Your task to perform on an android device: change keyboard looks Image 0: 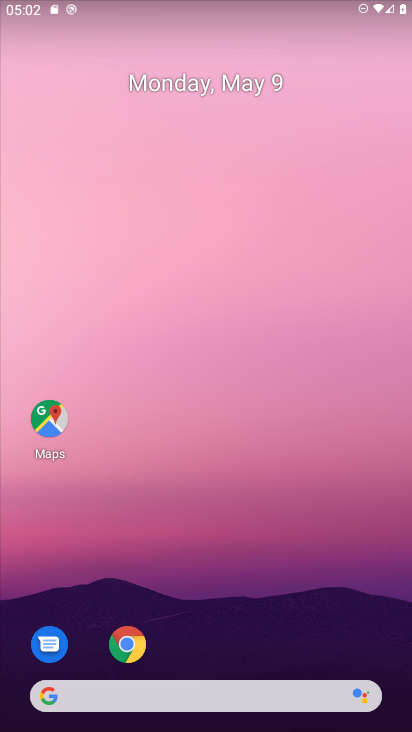
Step 0: drag from (211, 569) to (259, 212)
Your task to perform on an android device: change keyboard looks Image 1: 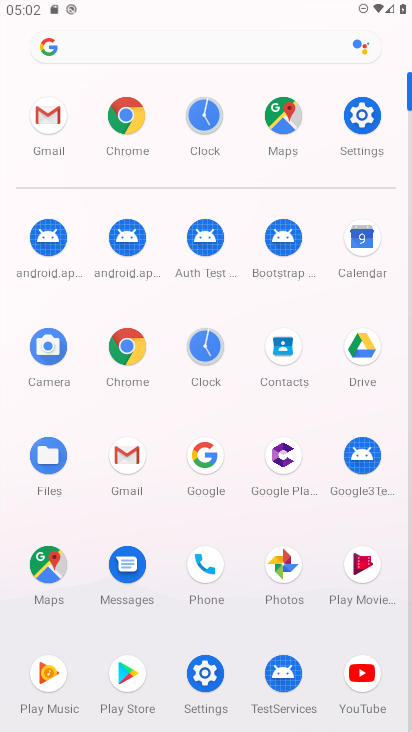
Step 1: click (204, 667)
Your task to perform on an android device: change keyboard looks Image 2: 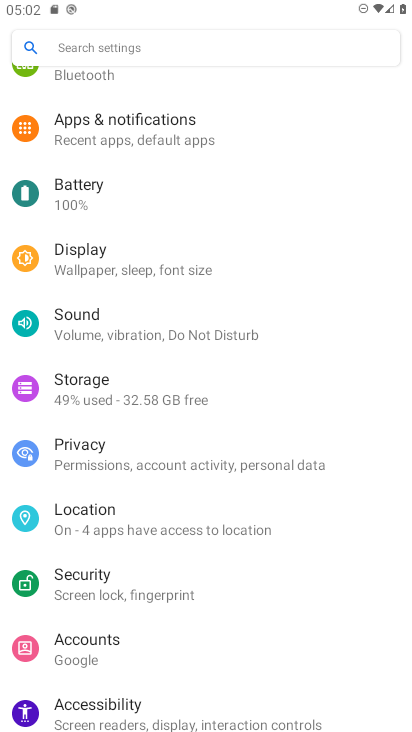
Step 2: drag from (170, 622) to (203, 494)
Your task to perform on an android device: change keyboard looks Image 3: 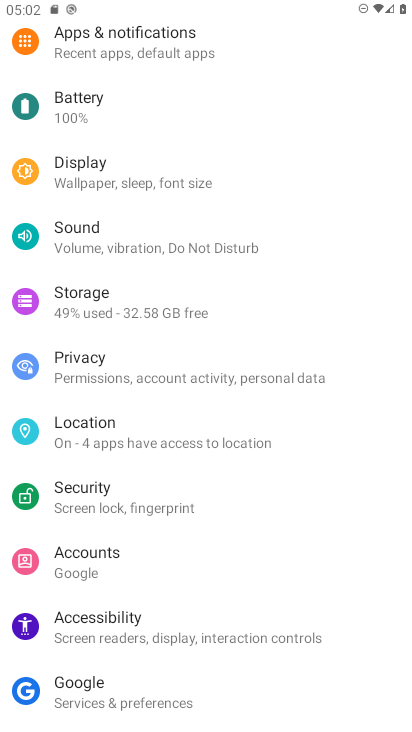
Step 3: drag from (141, 687) to (187, 529)
Your task to perform on an android device: change keyboard looks Image 4: 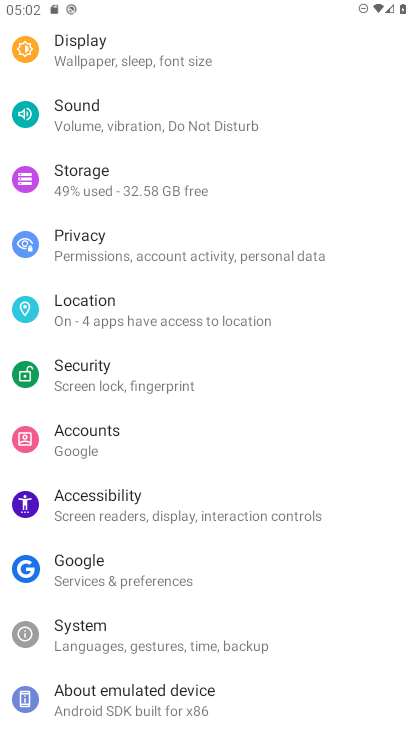
Step 4: click (105, 619)
Your task to perform on an android device: change keyboard looks Image 5: 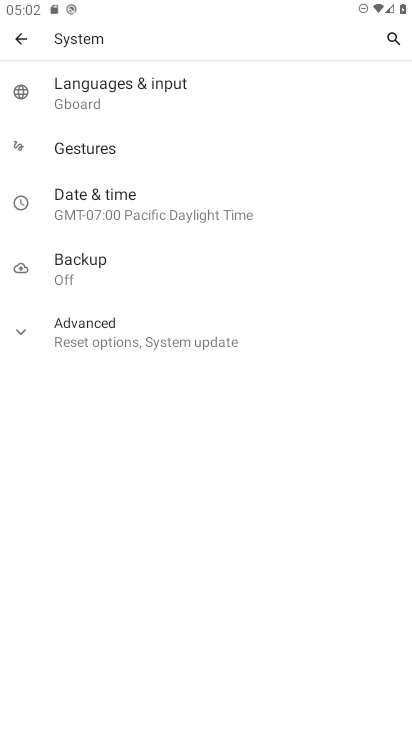
Step 5: click (155, 86)
Your task to perform on an android device: change keyboard looks Image 6: 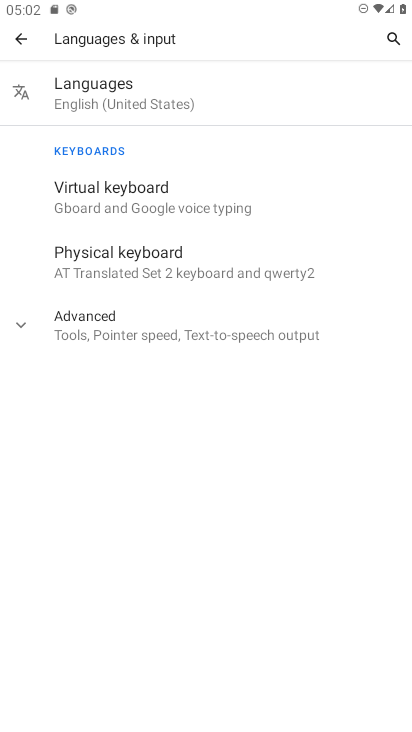
Step 6: click (123, 186)
Your task to perform on an android device: change keyboard looks Image 7: 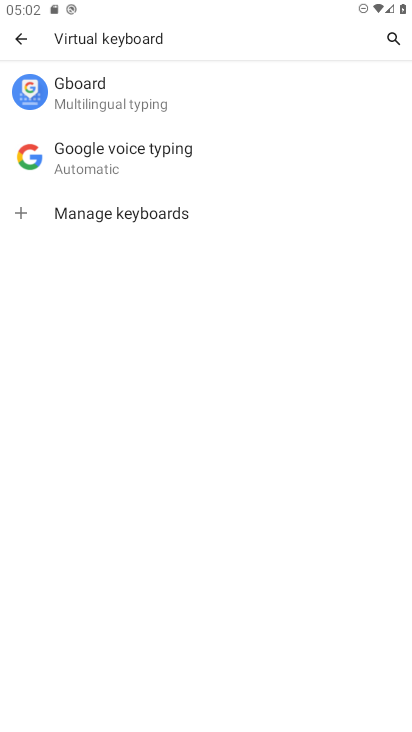
Step 7: click (83, 79)
Your task to perform on an android device: change keyboard looks Image 8: 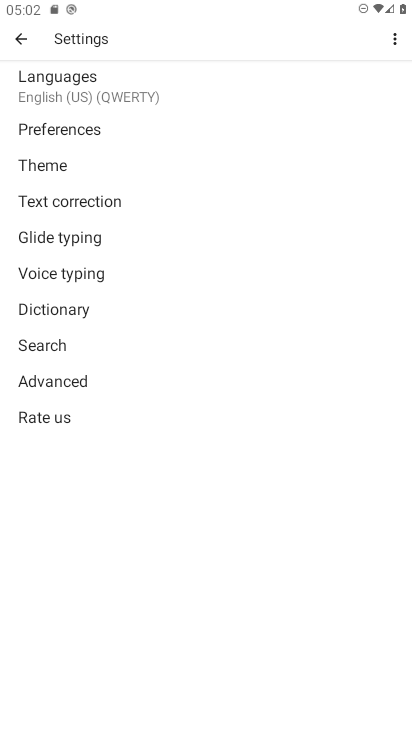
Step 8: click (61, 159)
Your task to perform on an android device: change keyboard looks Image 9: 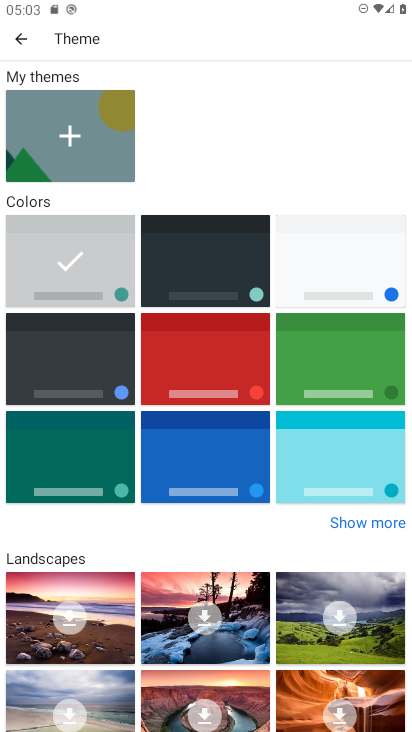
Step 9: click (353, 383)
Your task to perform on an android device: change keyboard looks Image 10: 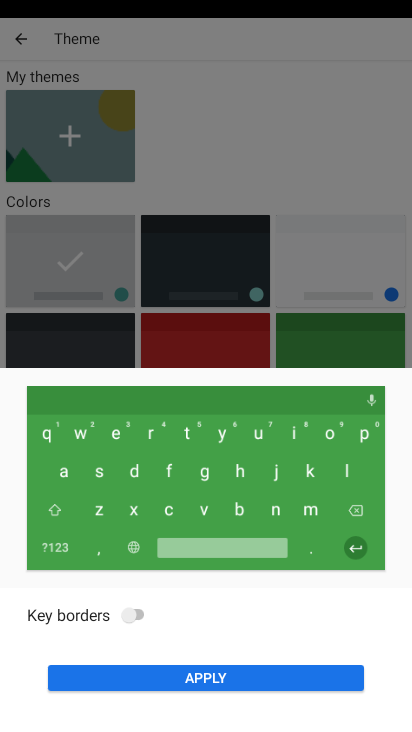
Step 10: click (123, 611)
Your task to perform on an android device: change keyboard looks Image 11: 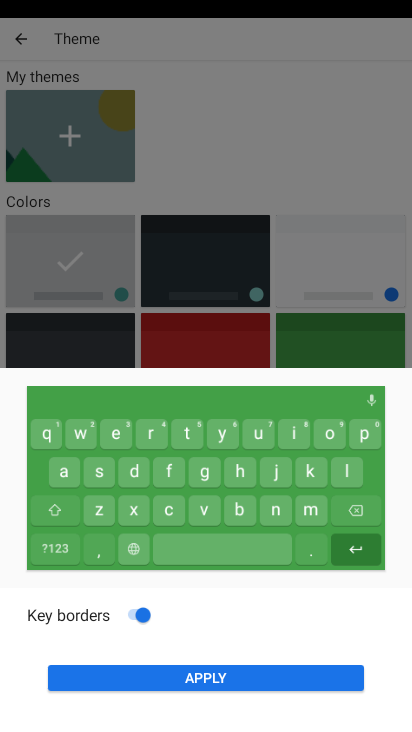
Step 11: click (197, 676)
Your task to perform on an android device: change keyboard looks Image 12: 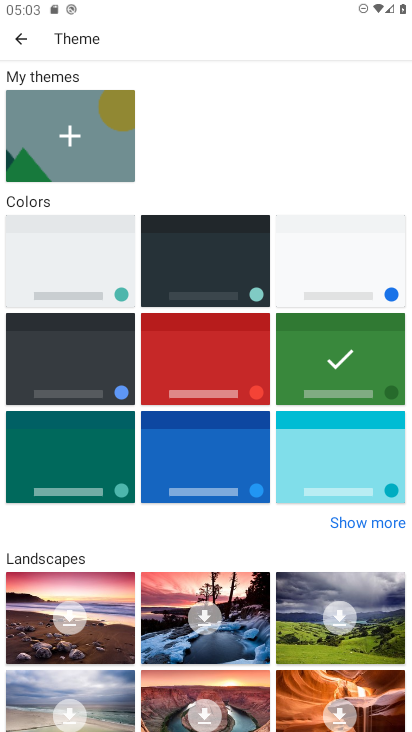
Step 12: task complete